Your task to perform on an android device: check google app version Image 0: 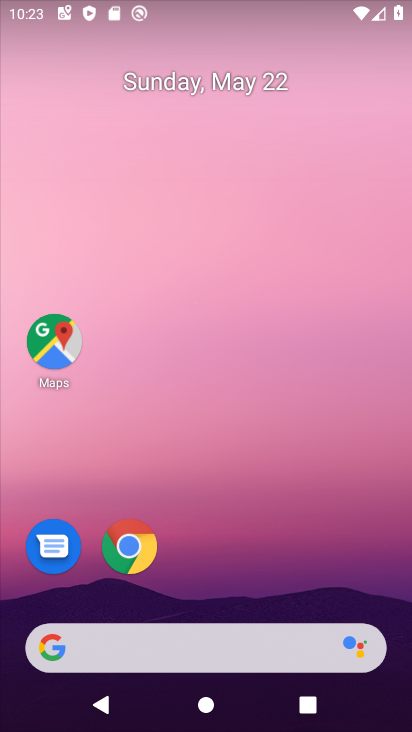
Step 0: click (55, 642)
Your task to perform on an android device: check google app version Image 1: 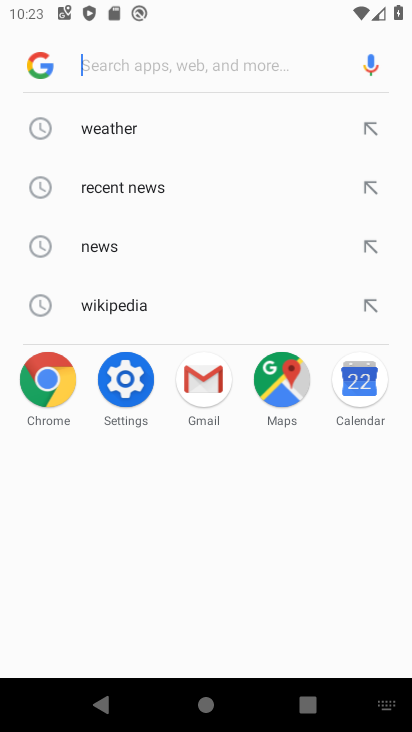
Step 1: click (27, 64)
Your task to perform on an android device: check google app version Image 2: 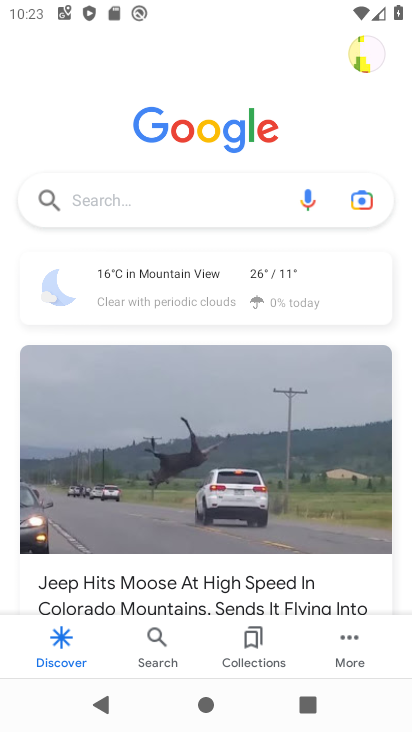
Step 2: click (343, 637)
Your task to perform on an android device: check google app version Image 3: 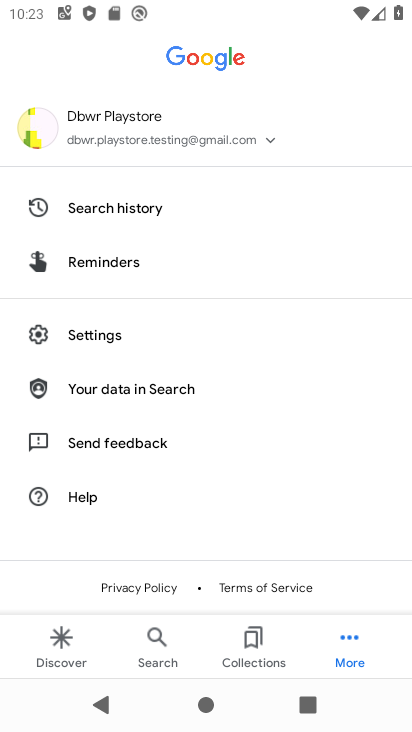
Step 3: click (97, 338)
Your task to perform on an android device: check google app version Image 4: 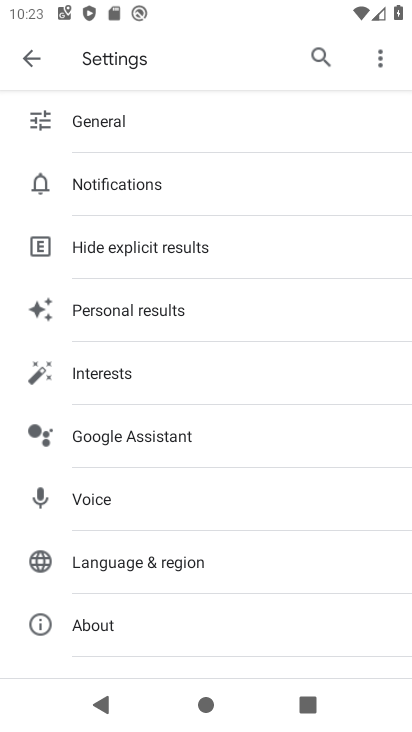
Step 4: click (104, 624)
Your task to perform on an android device: check google app version Image 5: 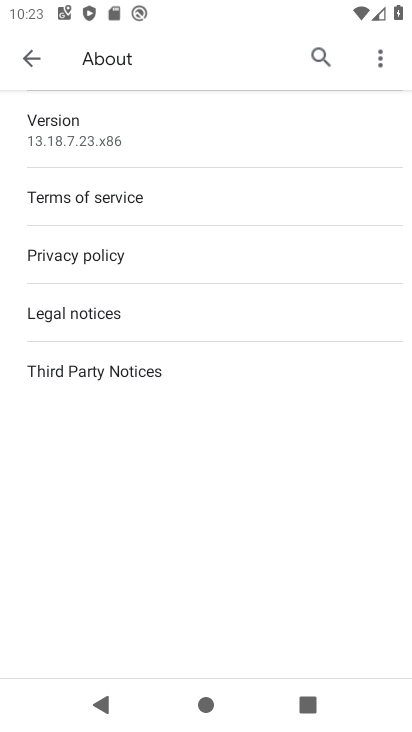
Step 5: task complete